Your task to perform on an android device: change the clock display to analog Image 0: 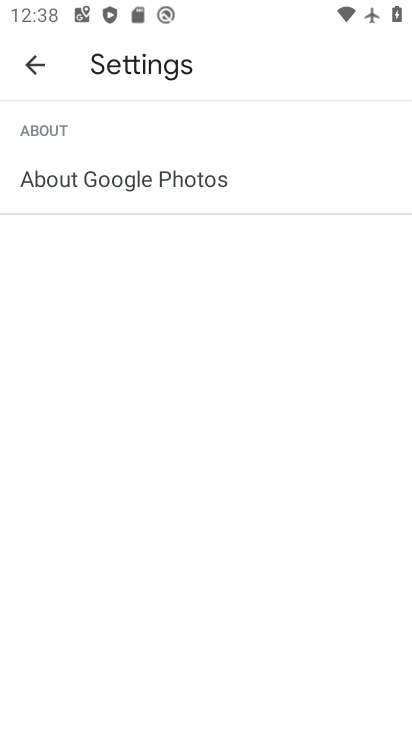
Step 0: press home button
Your task to perform on an android device: change the clock display to analog Image 1: 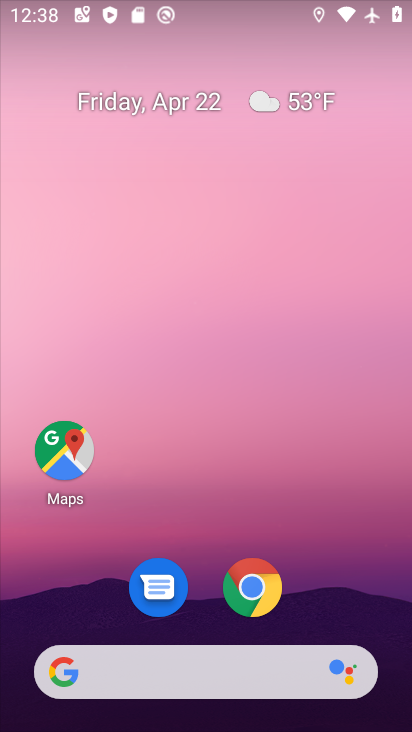
Step 1: drag from (124, 674) to (261, 171)
Your task to perform on an android device: change the clock display to analog Image 2: 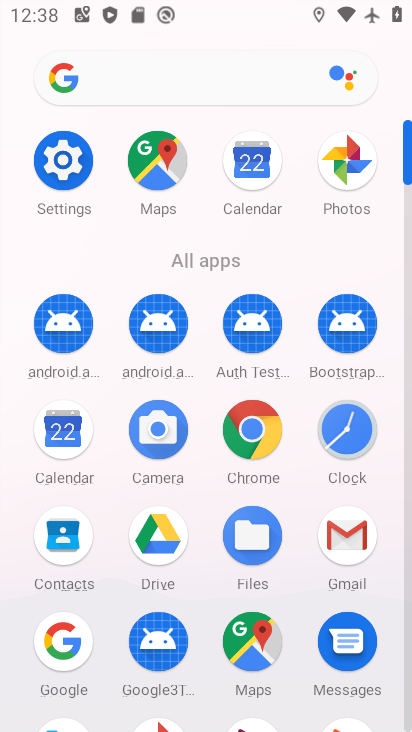
Step 2: click (354, 436)
Your task to perform on an android device: change the clock display to analog Image 3: 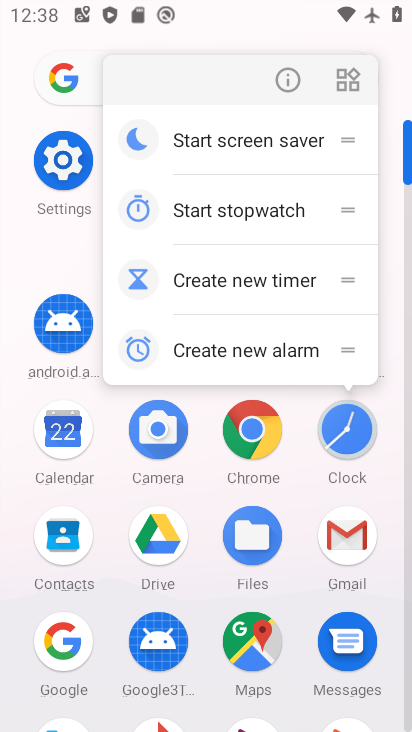
Step 3: click (339, 444)
Your task to perform on an android device: change the clock display to analog Image 4: 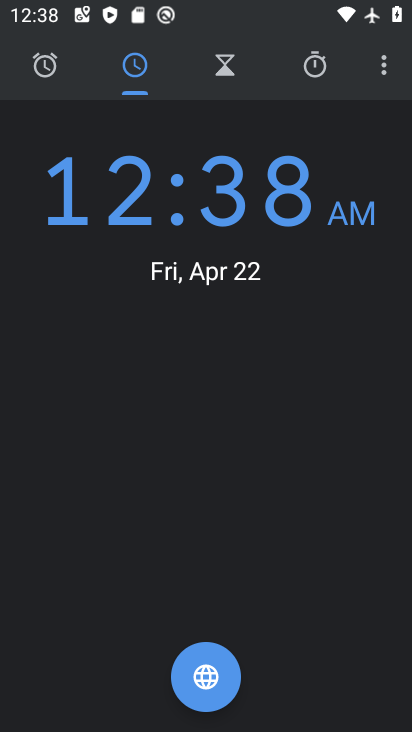
Step 4: click (385, 69)
Your task to perform on an android device: change the clock display to analog Image 5: 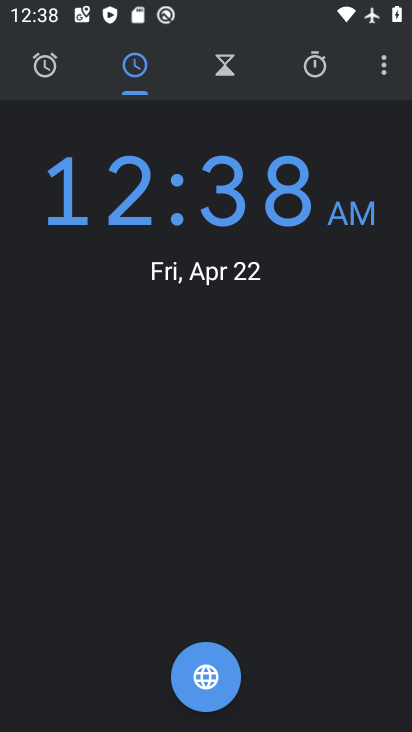
Step 5: click (378, 72)
Your task to perform on an android device: change the clock display to analog Image 6: 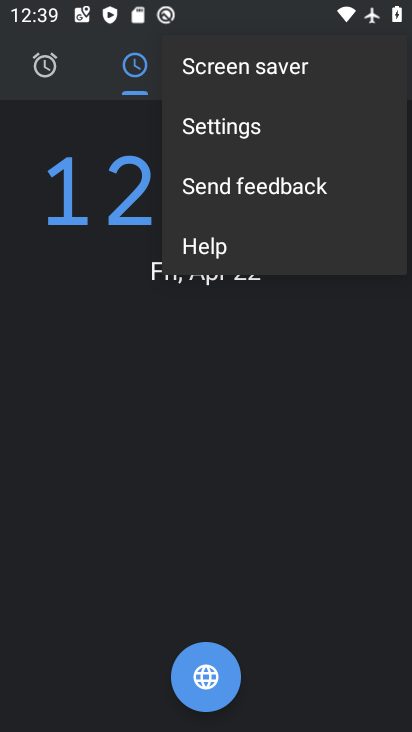
Step 6: click (249, 127)
Your task to perform on an android device: change the clock display to analog Image 7: 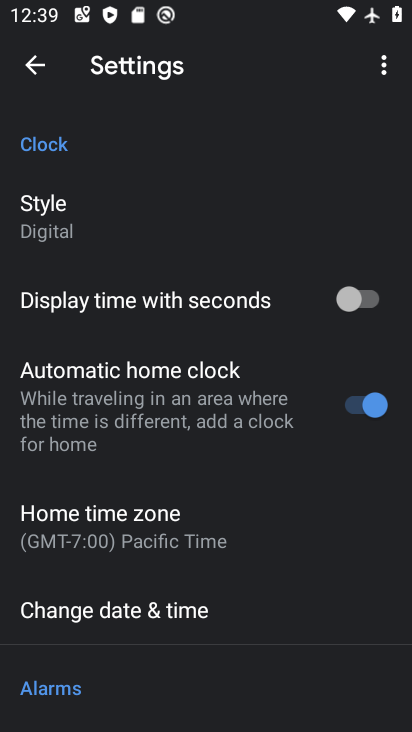
Step 7: click (59, 230)
Your task to perform on an android device: change the clock display to analog Image 8: 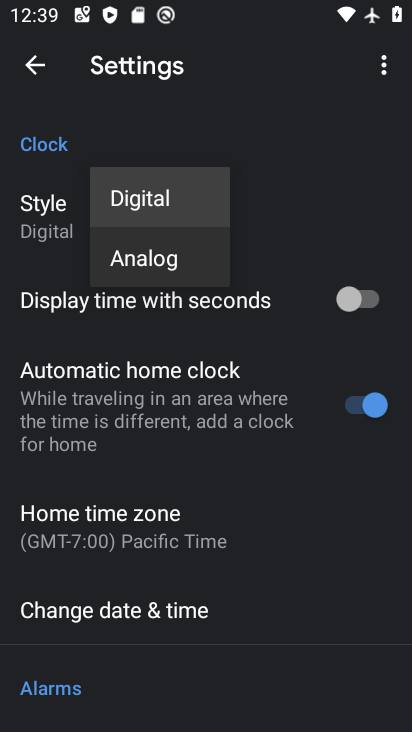
Step 8: click (120, 265)
Your task to perform on an android device: change the clock display to analog Image 9: 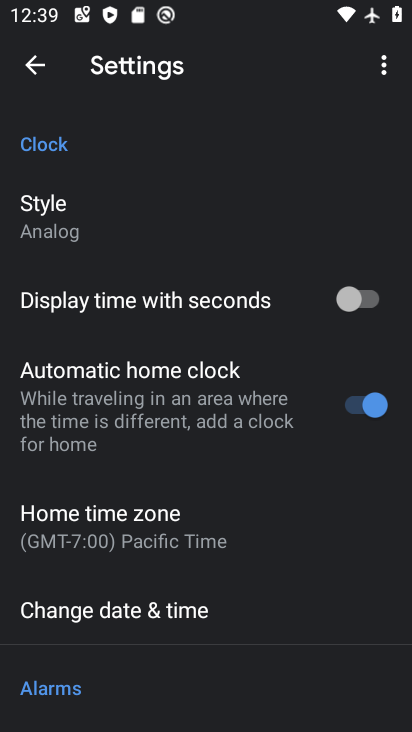
Step 9: task complete